Your task to perform on an android device: Search for razer naga on newegg.com, select the first entry, and add it to the cart. Image 0: 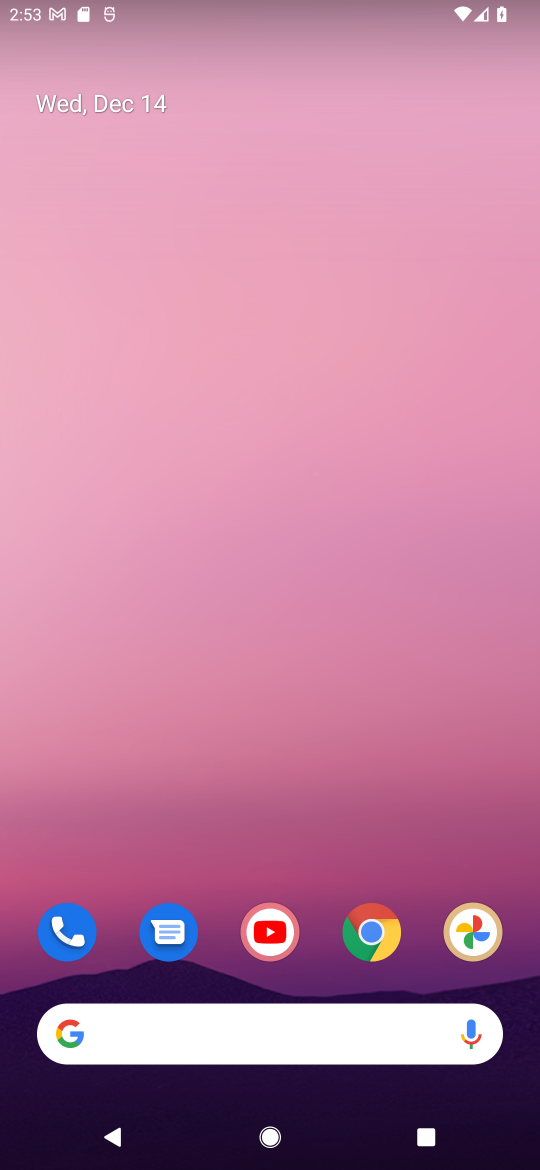
Step 0: click (261, 1022)
Your task to perform on an android device: Search for razer naga on newegg.com, select the first entry, and add it to the cart. Image 1: 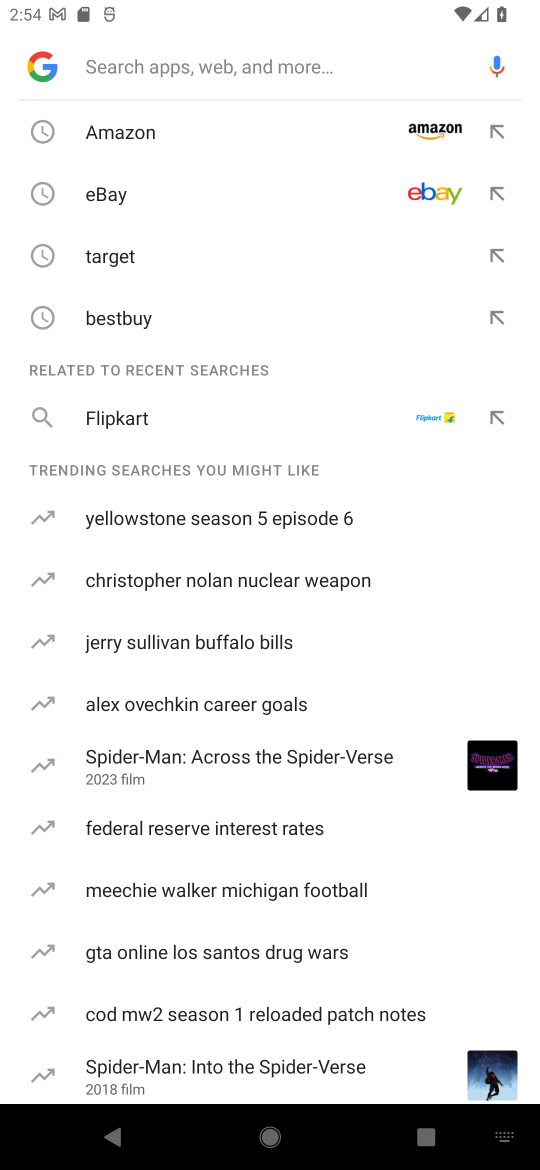
Step 1: type " newegg.com"
Your task to perform on an android device: Search for razer naga on newegg.com, select the first entry, and add it to the cart. Image 2: 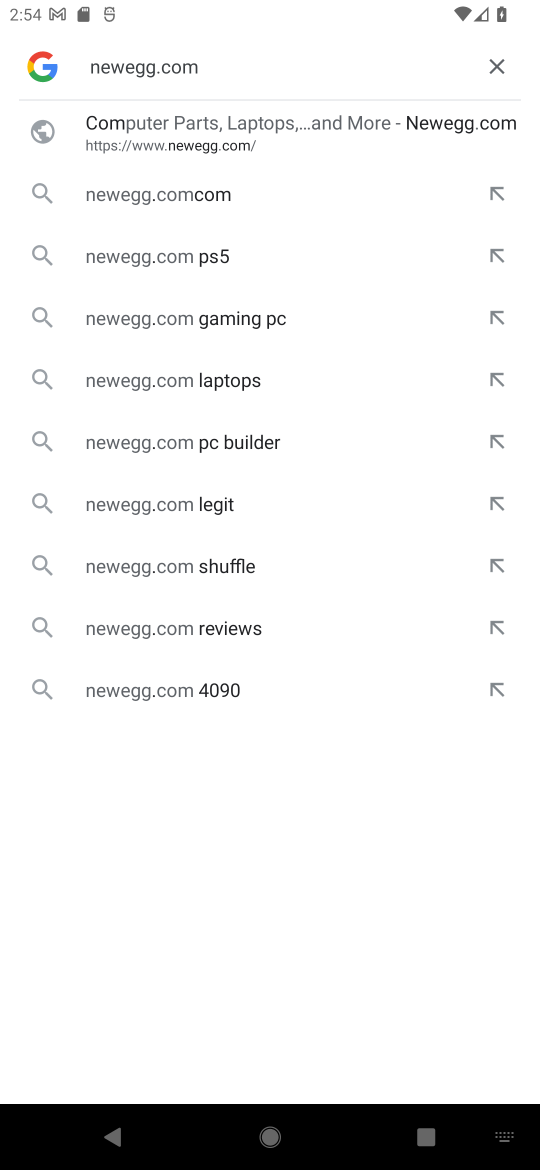
Step 2: click (189, 138)
Your task to perform on an android device: Search for razer naga on newegg.com, select the first entry, and add it to the cart. Image 3: 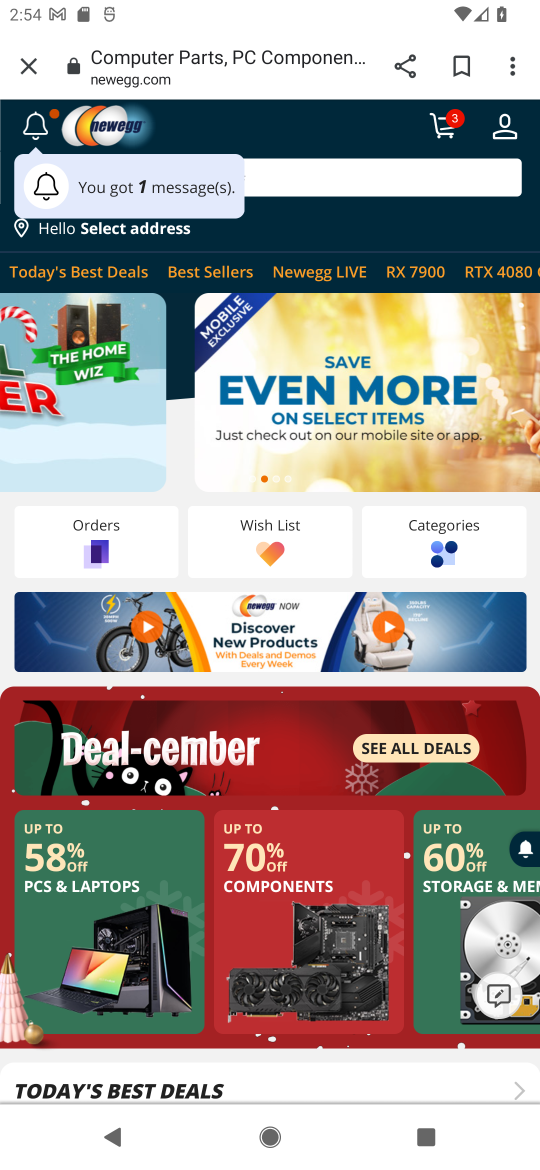
Step 3: click (292, 173)
Your task to perform on an android device: Search for razer naga on newegg.com, select the first entry, and add it to the cart. Image 4: 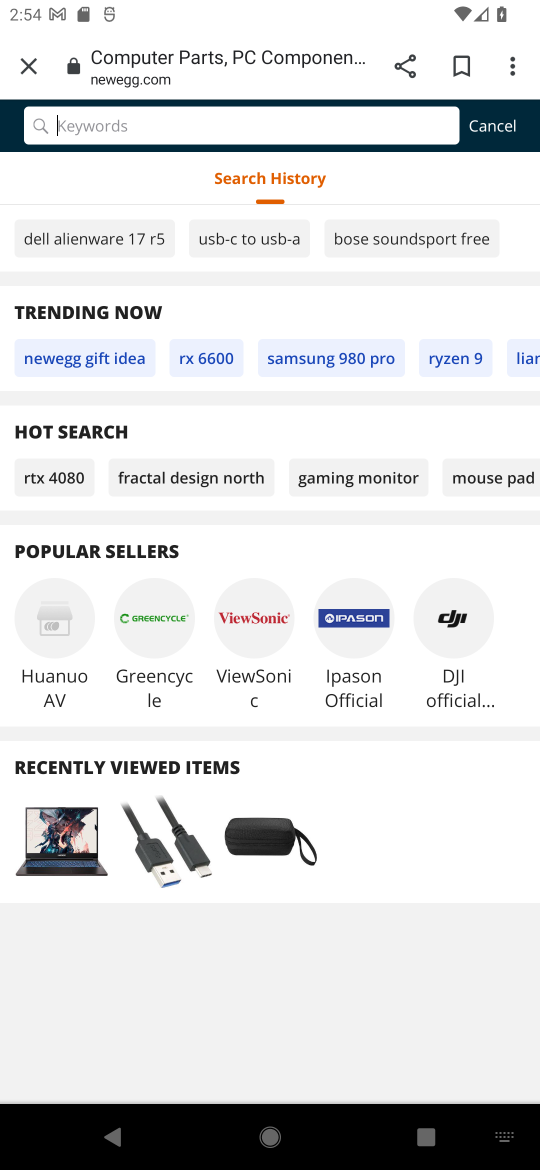
Step 4: type "razer naga "
Your task to perform on an android device: Search for razer naga on newegg.com, select the first entry, and add it to the cart. Image 5: 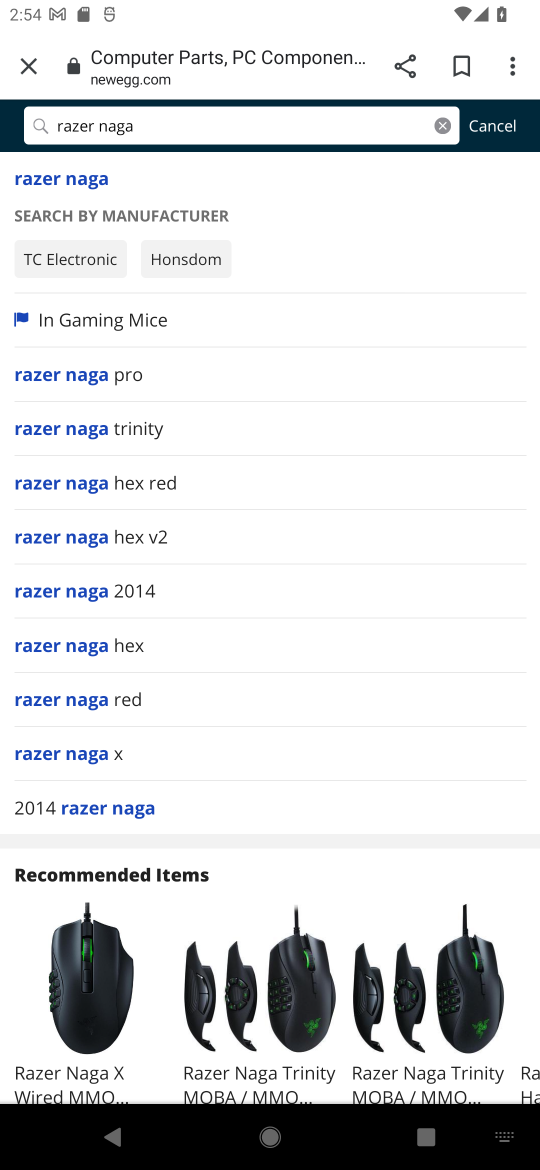
Step 5: click (75, 183)
Your task to perform on an android device: Search for razer naga on newegg.com, select the first entry, and add it to the cart. Image 6: 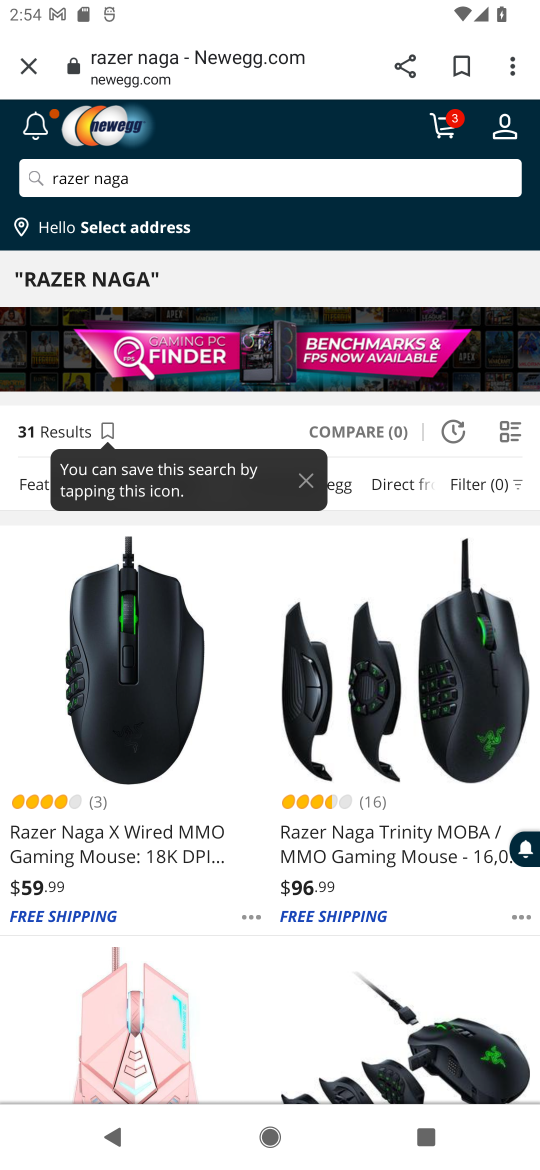
Step 6: click (116, 713)
Your task to perform on an android device: Search for razer naga on newegg.com, select the first entry, and add it to the cart. Image 7: 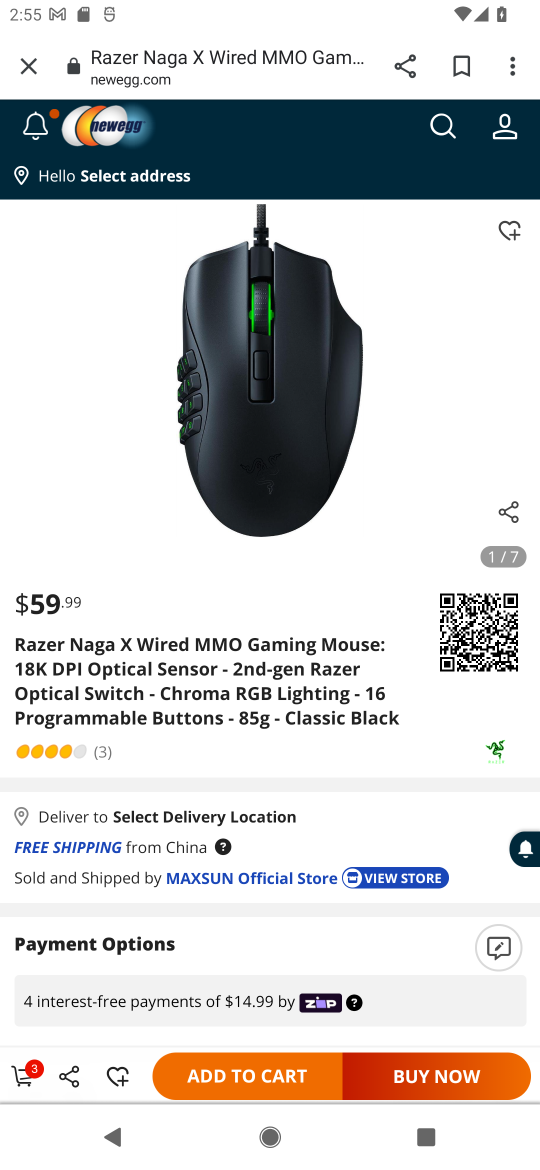
Step 7: click (218, 1073)
Your task to perform on an android device: Search for razer naga on newegg.com, select the first entry, and add it to the cart. Image 8: 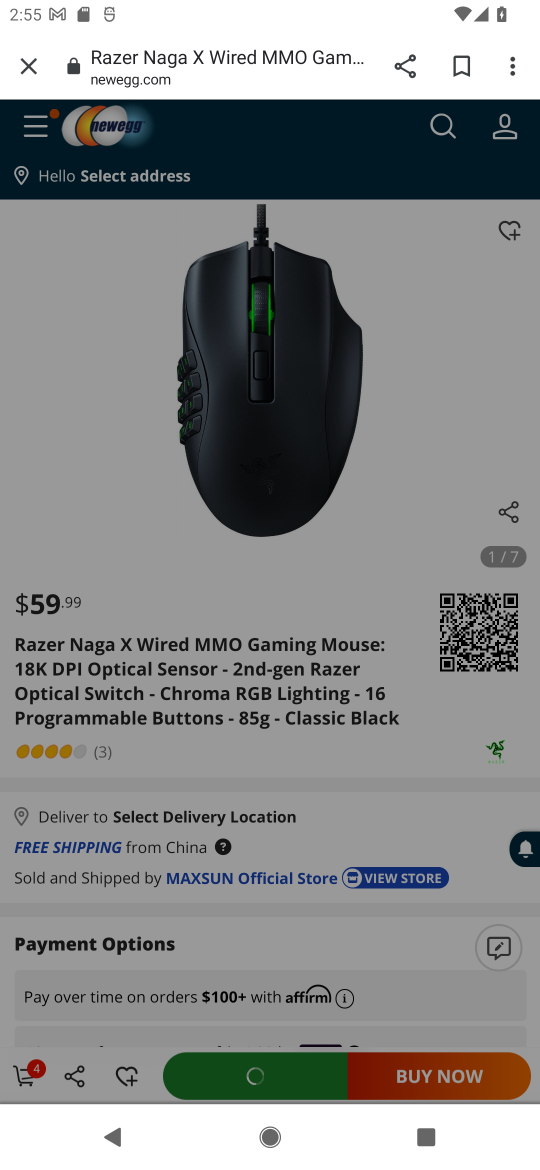
Step 8: task complete